Your task to perform on an android device: empty trash in the gmail app Image 0: 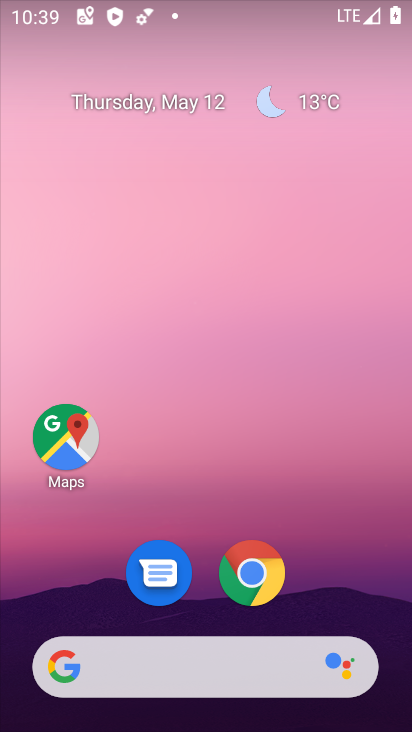
Step 0: drag from (200, 631) to (67, 15)
Your task to perform on an android device: empty trash in the gmail app Image 1: 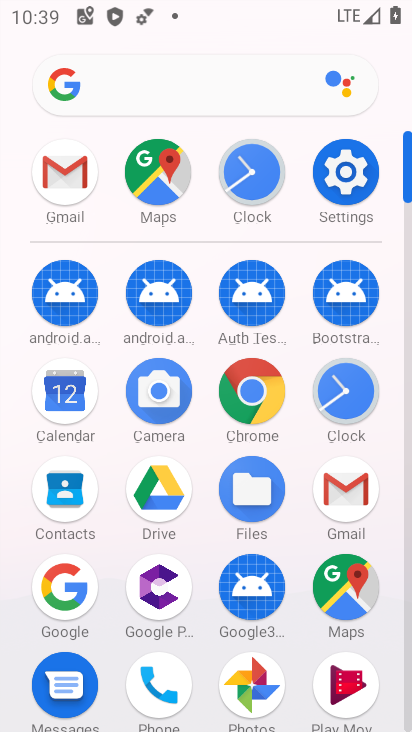
Step 1: click (348, 493)
Your task to perform on an android device: empty trash in the gmail app Image 2: 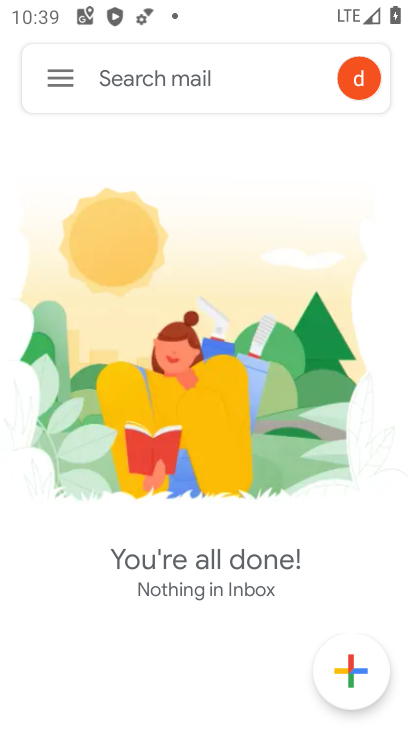
Step 2: click (67, 71)
Your task to perform on an android device: empty trash in the gmail app Image 3: 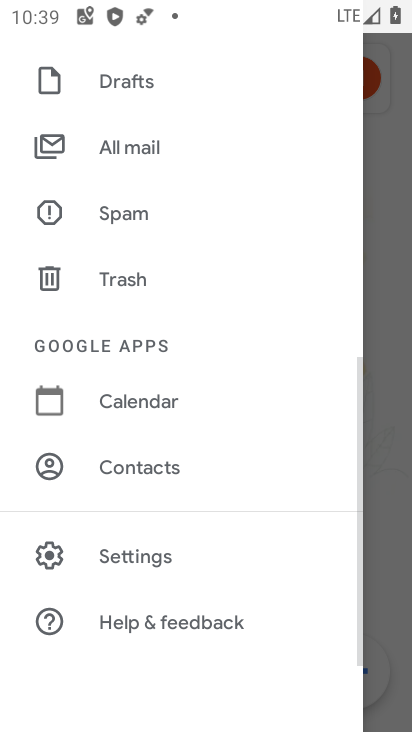
Step 3: click (143, 293)
Your task to perform on an android device: empty trash in the gmail app Image 4: 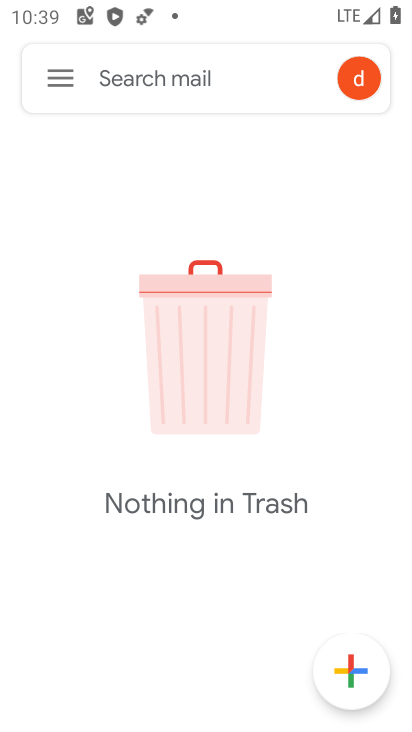
Step 4: task complete